Your task to perform on an android device: Open accessibility settings Image 0: 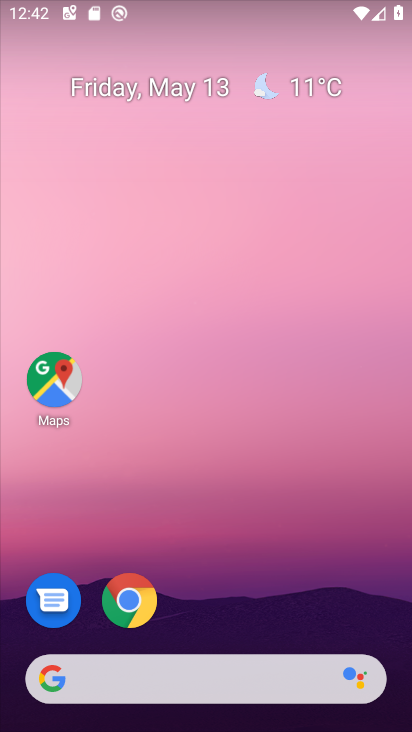
Step 0: drag from (234, 554) to (283, 103)
Your task to perform on an android device: Open accessibility settings Image 1: 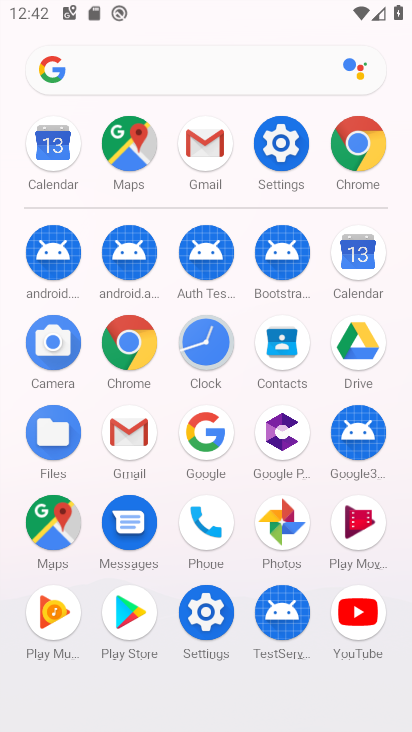
Step 1: click (278, 129)
Your task to perform on an android device: Open accessibility settings Image 2: 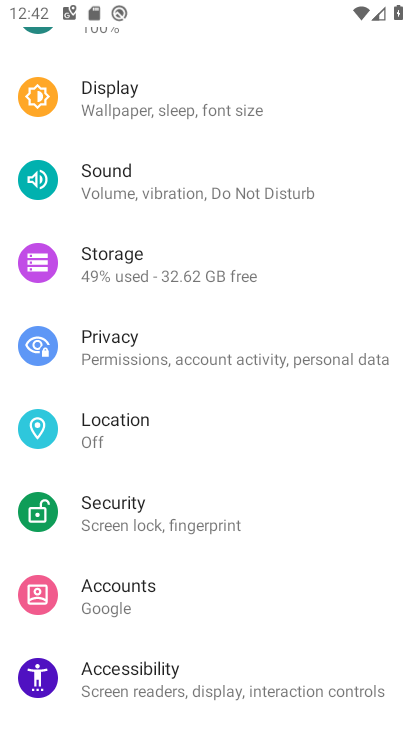
Step 2: click (145, 677)
Your task to perform on an android device: Open accessibility settings Image 3: 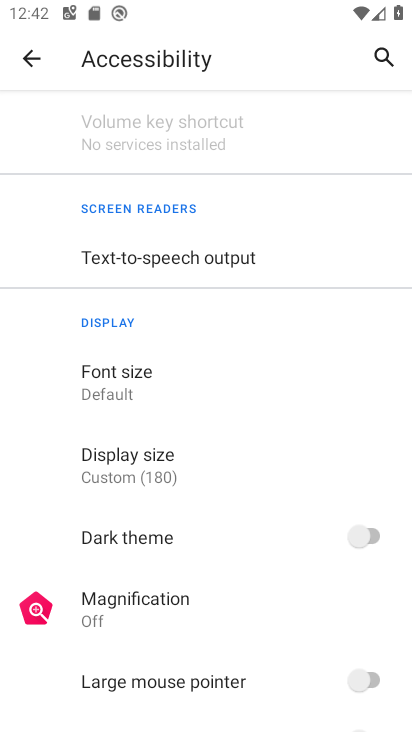
Step 3: task complete